Your task to perform on an android device: Search for seafood restaurants on Google Maps Image 0: 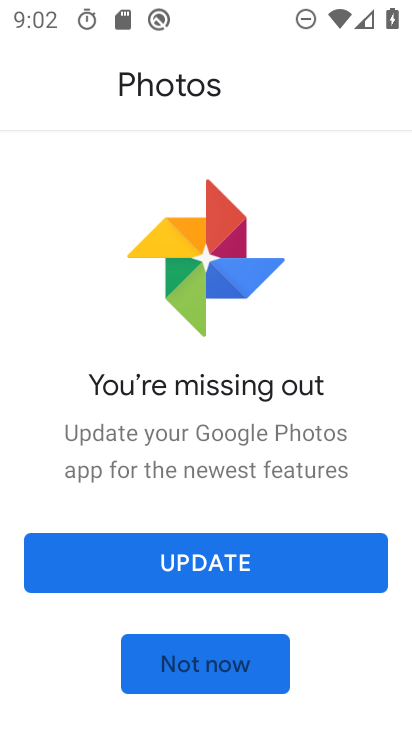
Step 0: press home button
Your task to perform on an android device: Search for seafood restaurants on Google Maps Image 1: 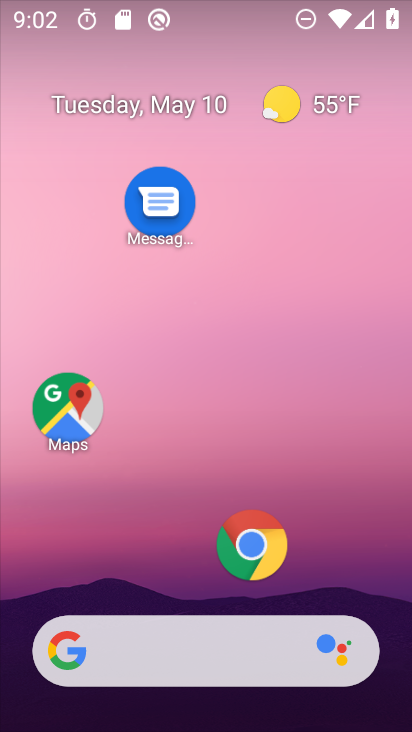
Step 1: drag from (176, 561) to (228, 208)
Your task to perform on an android device: Search for seafood restaurants on Google Maps Image 2: 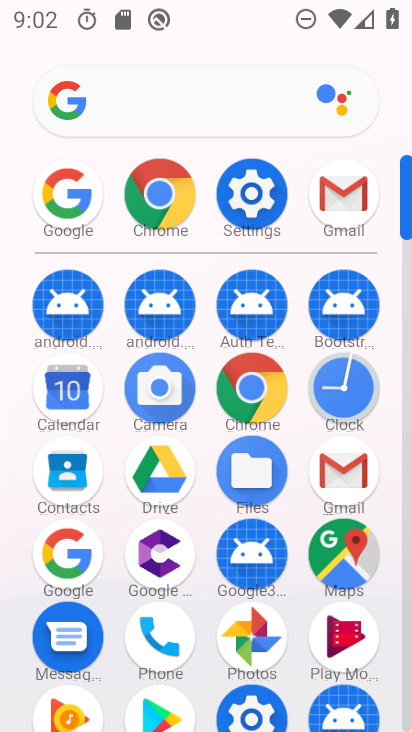
Step 2: click (340, 557)
Your task to perform on an android device: Search for seafood restaurants on Google Maps Image 3: 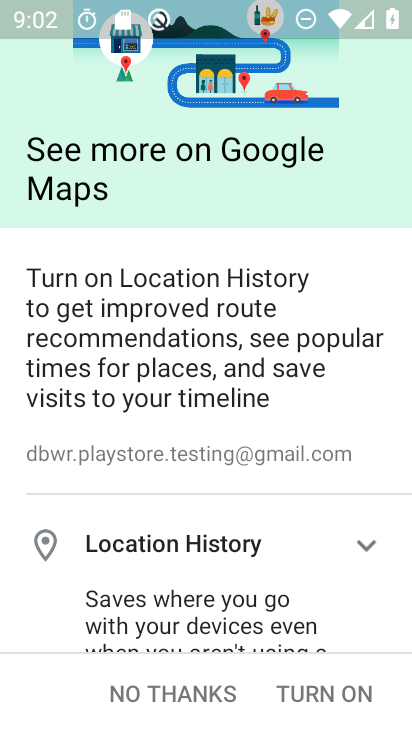
Step 3: click (301, 693)
Your task to perform on an android device: Search for seafood restaurants on Google Maps Image 4: 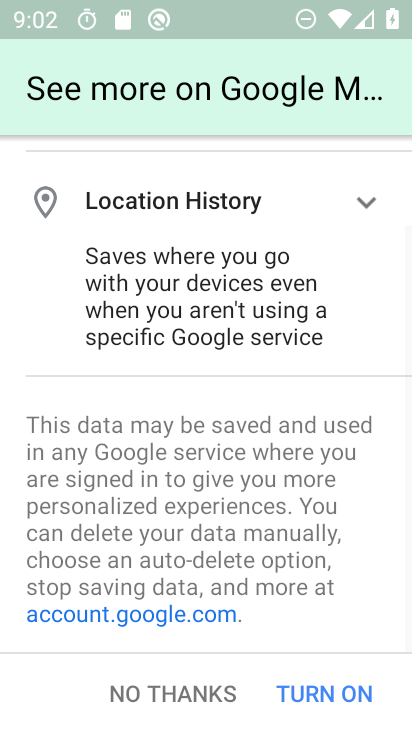
Step 4: click (301, 693)
Your task to perform on an android device: Search for seafood restaurants on Google Maps Image 5: 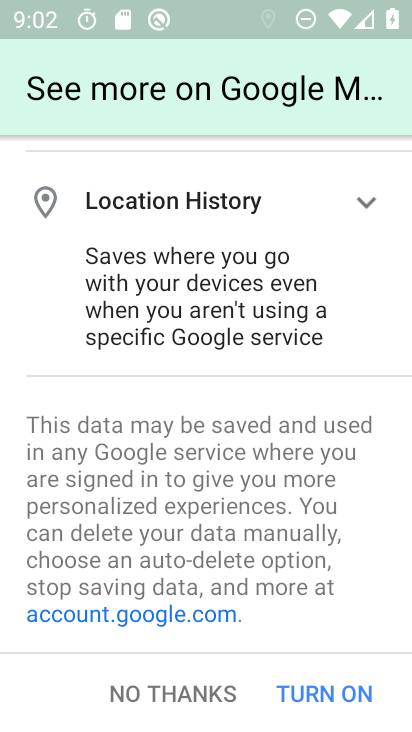
Step 5: drag from (301, 693) to (318, 420)
Your task to perform on an android device: Search for seafood restaurants on Google Maps Image 6: 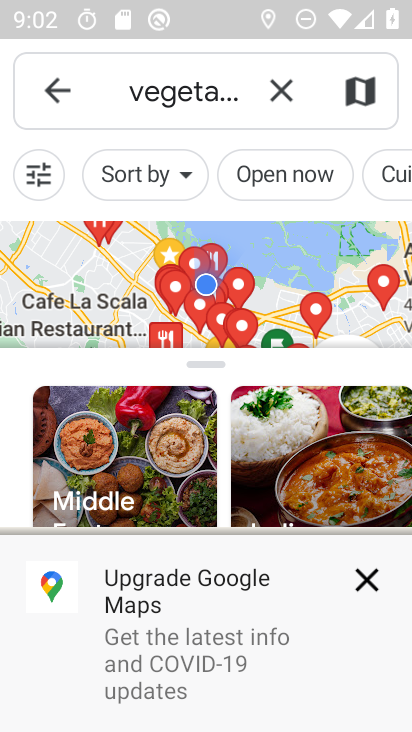
Step 6: click (364, 576)
Your task to perform on an android device: Search for seafood restaurants on Google Maps Image 7: 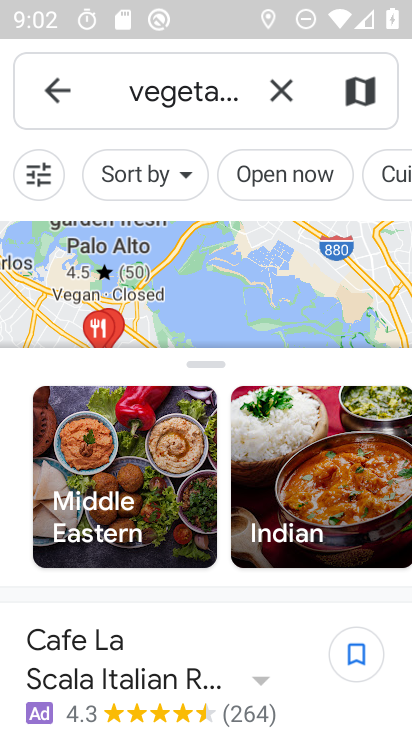
Step 7: click (275, 90)
Your task to perform on an android device: Search for seafood restaurants on Google Maps Image 8: 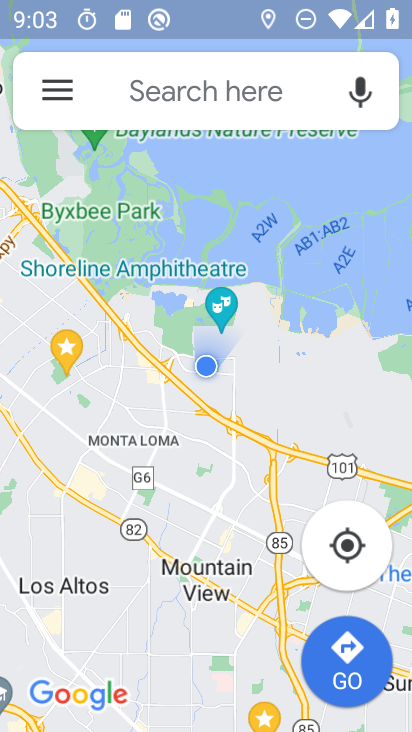
Step 8: type "seafood restaurants"
Your task to perform on an android device: Search for seafood restaurants on Google Maps Image 9: 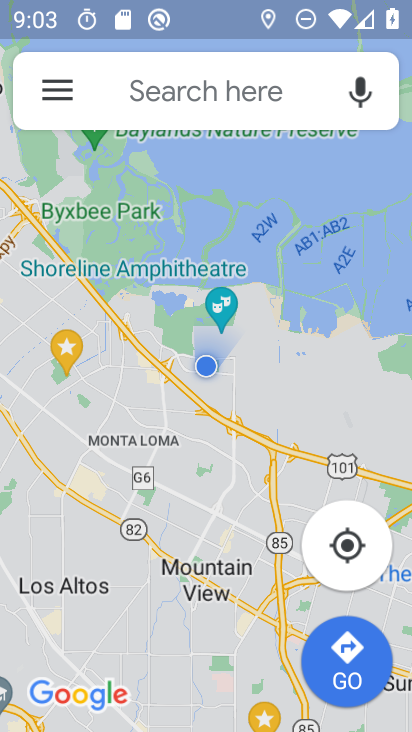
Step 9: click (275, 83)
Your task to perform on an android device: Search for seafood restaurants on Google Maps Image 10: 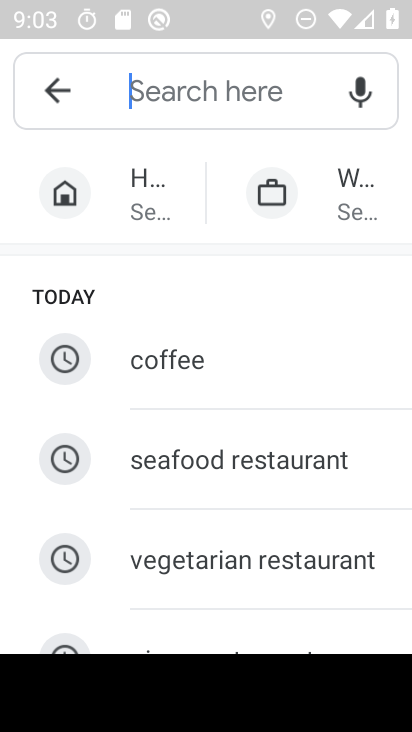
Step 10: type "seafood restaurants"
Your task to perform on an android device: Search for seafood restaurants on Google Maps Image 11: 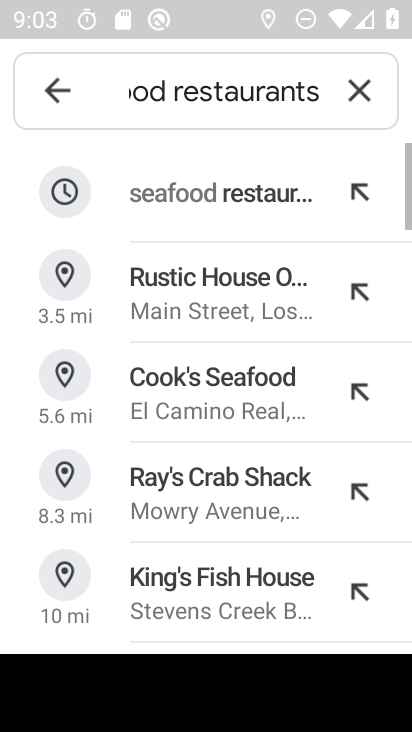
Step 11: click (240, 202)
Your task to perform on an android device: Search for seafood restaurants on Google Maps Image 12: 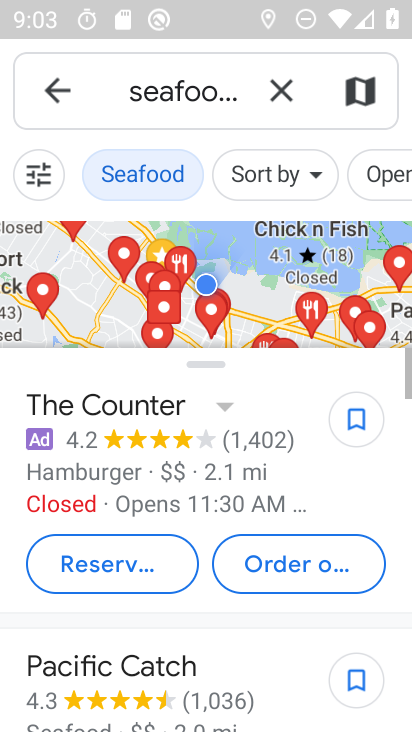
Step 12: task complete